Your task to perform on an android device: Go to Yahoo.com Image 0: 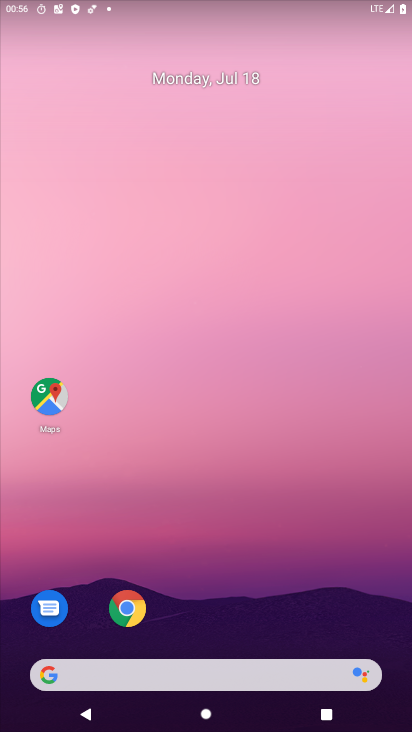
Step 0: drag from (338, 467) to (402, 31)
Your task to perform on an android device: Go to Yahoo.com Image 1: 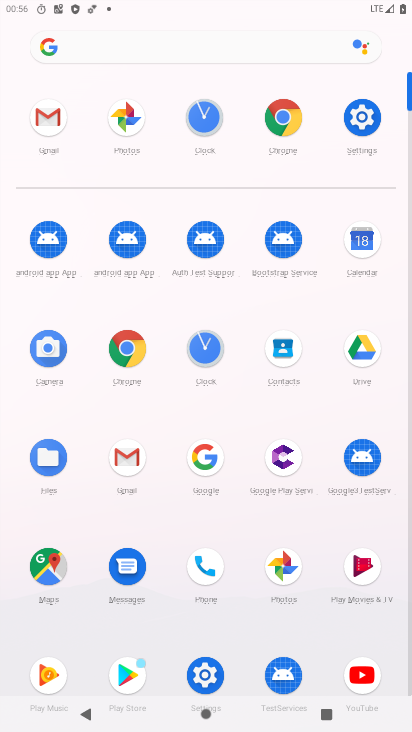
Step 1: click (287, 109)
Your task to perform on an android device: Go to Yahoo.com Image 2: 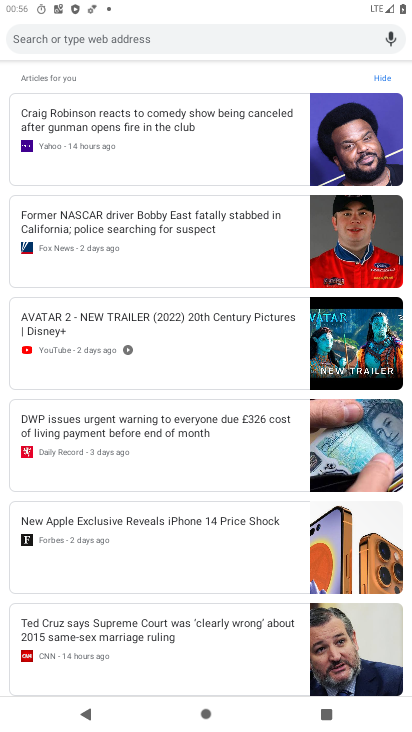
Step 2: drag from (240, 124) to (278, 610)
Your task to perform on an android device: Go to Yahoo.com Image 3: 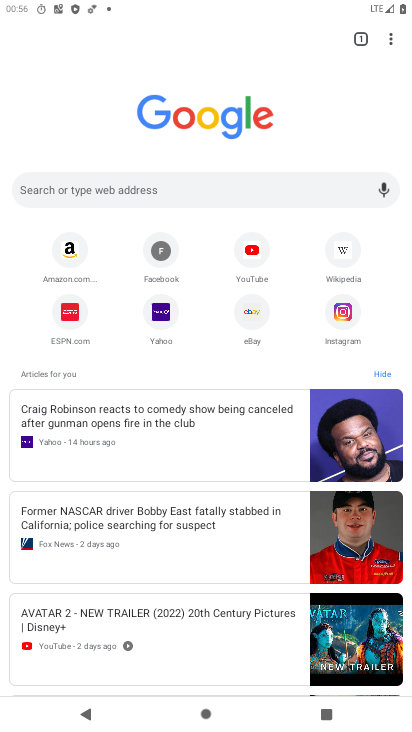
Step 3: click (162, 303)
Your task to perform on an android device: Go to Yahoo.com Image 4: 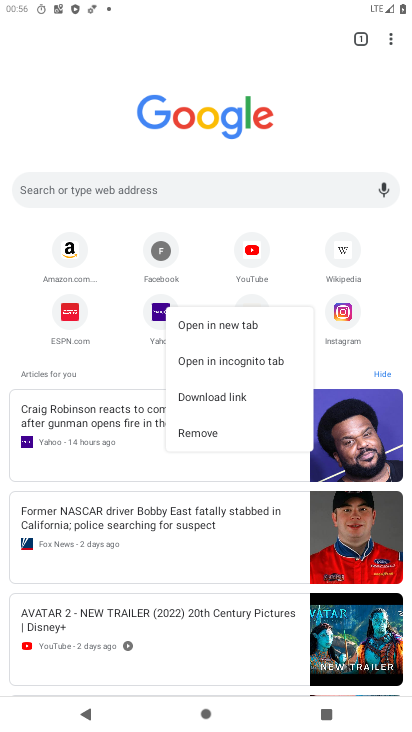
Step 4: click (163, 302)
Your task to perform on an android device: Go to Yahoo.com Image 5: 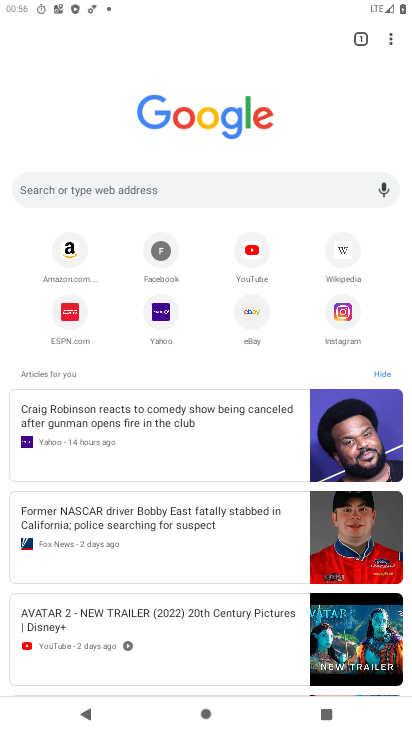
Step 5: click (163, 310)
Your task to perform on an android device: Go to Yahoo.com Image 6: 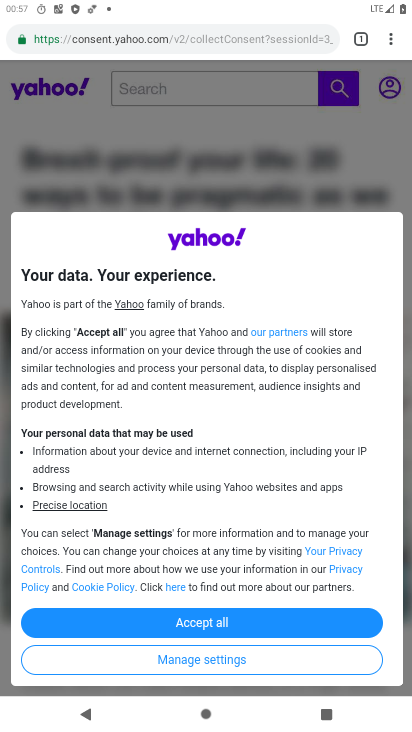
Step 6: task complete